Your task to perform on an android device: Open Maps and search for coffee Image 0: 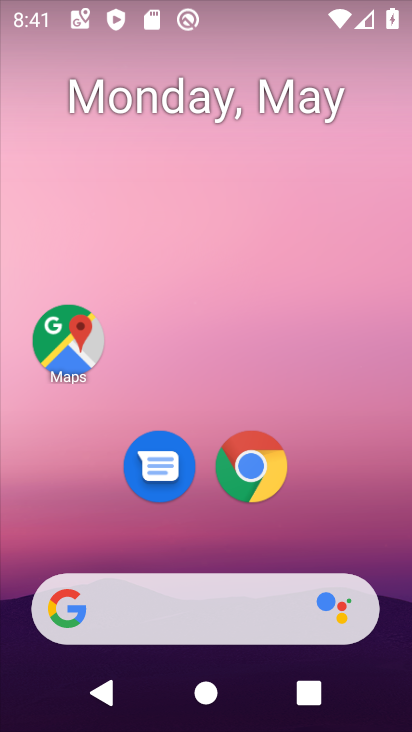
Step 0: drag from (243, 654) to (321, 6)
Your task to perform on an android device: Open Maps and search for coffee Image 1: 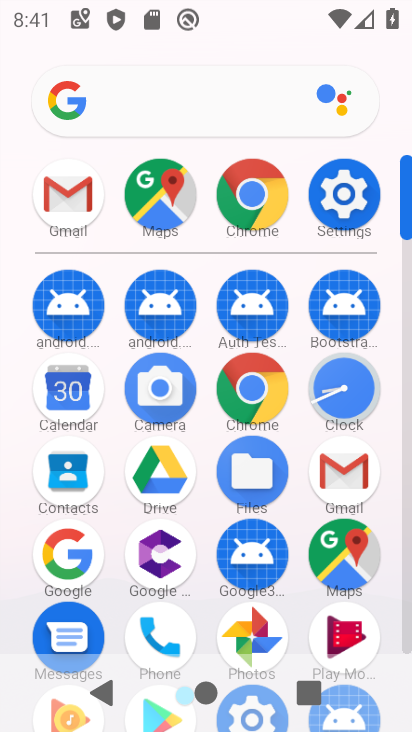
Step 1: click (169, 181)
Your task to perform on an android device: Open Maps and search for coffee Image 2: 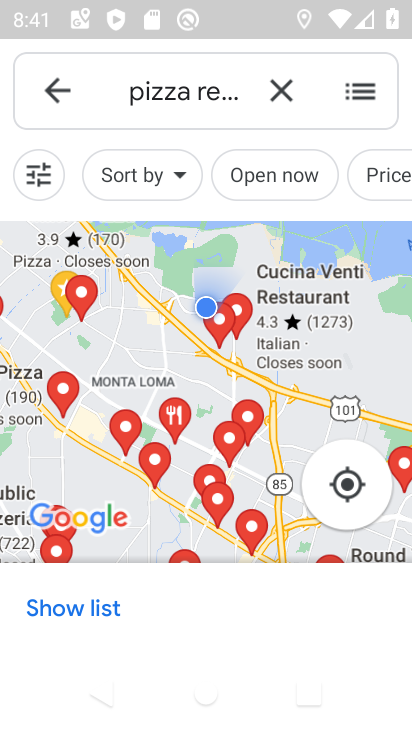
Step 2: click (279, 83)
Your task to perform on an android device: Open Maps and search for coffee Image 3: 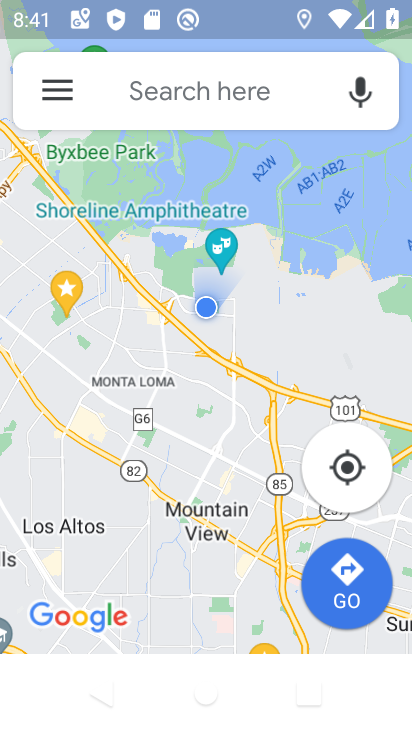
Step 3: click (164, 89)
Your task to perform on an android device: Open Maps and search for coffee Image 4: 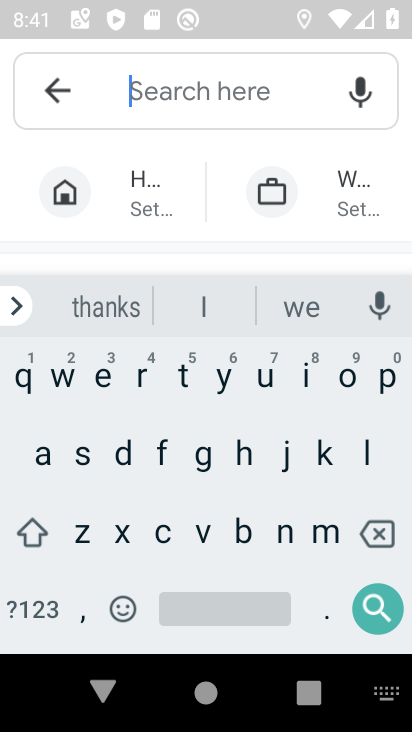
Step 4: click (162, 533)
Your task to perform on an android device: Open Maps and search for coffee Image 5: 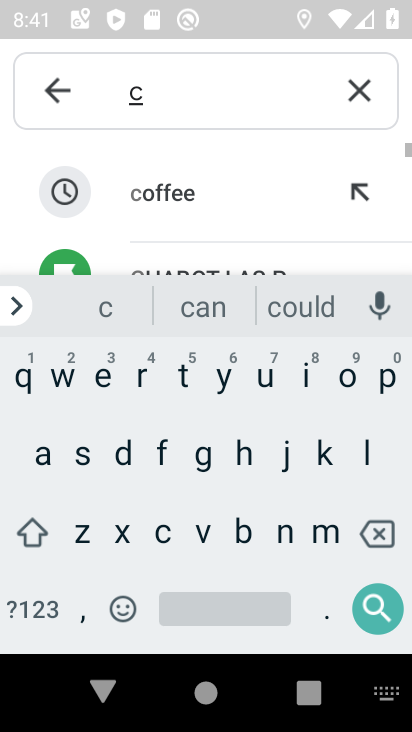
Step 5: click (346, 374)
Your task to perform on an android device: Open Maps and search for coffee Image 6: 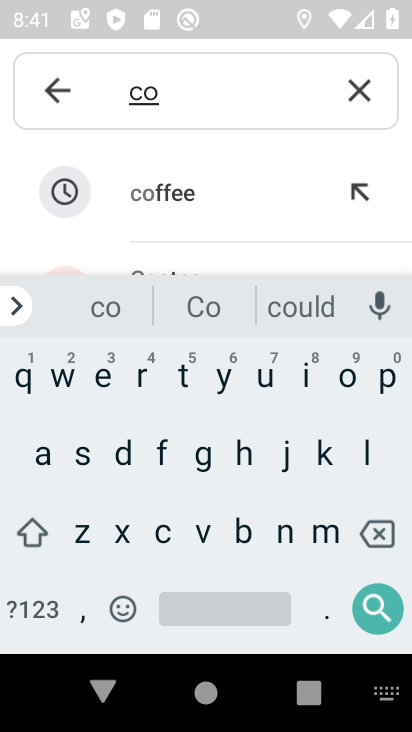
Step 6: click (171, 193)
Your task to perform on an android device: Open Maps and search for coffee Image 7: 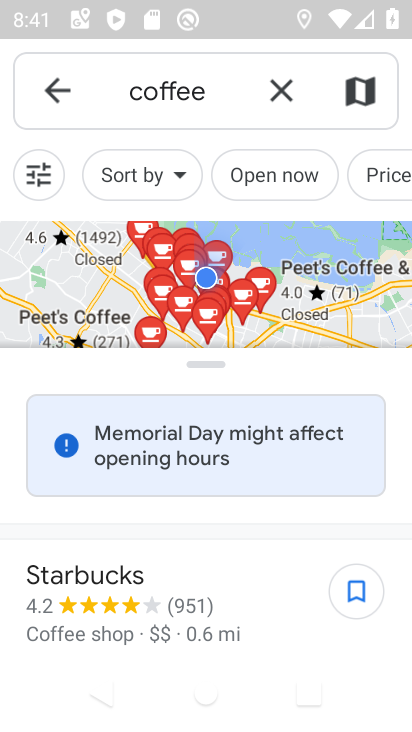
Step 7: click (204, 280)
Your task to perform on an android device: Open Maps and search for coffee Image 8: 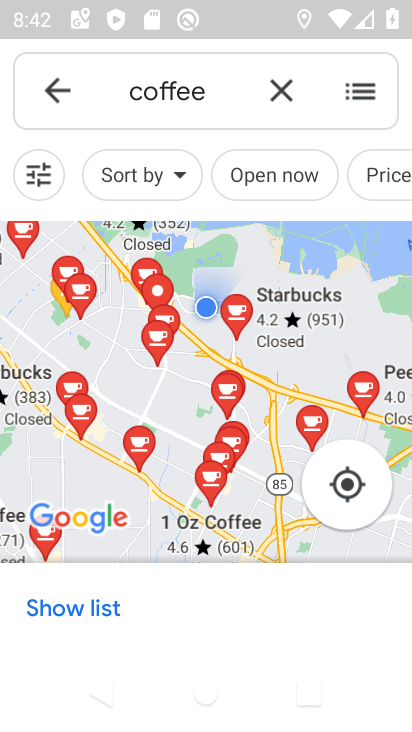
Step 8: click (207, 269)
Your task to perform on an android device: Open Maps and search for coffee Image 9: 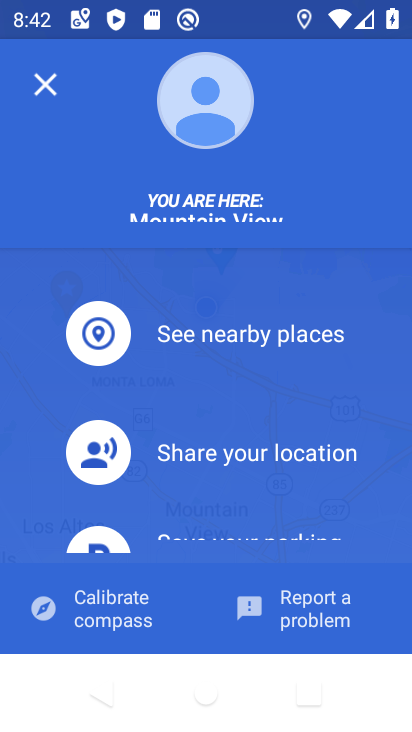
Step 9: click (49, 82)
Your task to perform on an android device: Open Maps and search for coffee Image 10: 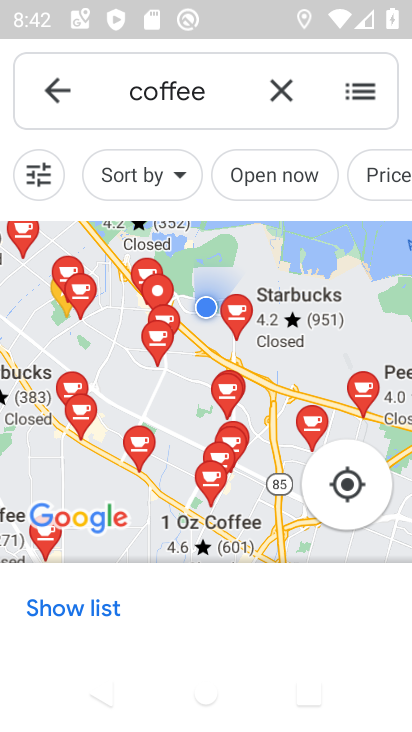
Step 10: task complete